Your task to perform on an android device: Turn on the flashlight Image 0: 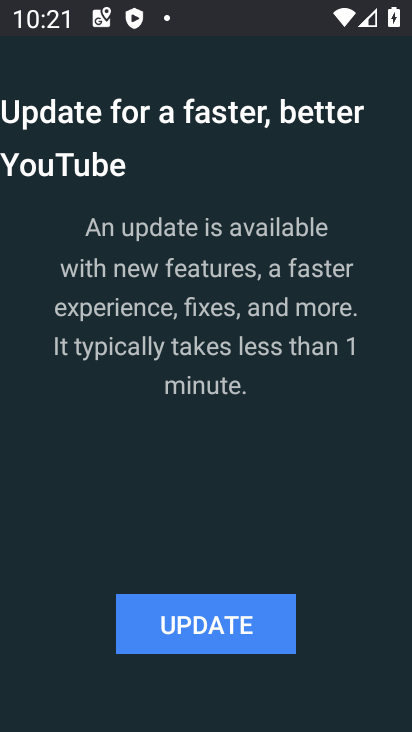
Step 0: press home button
Your task to perform on an android device: Turn on the flashlight Image 1: 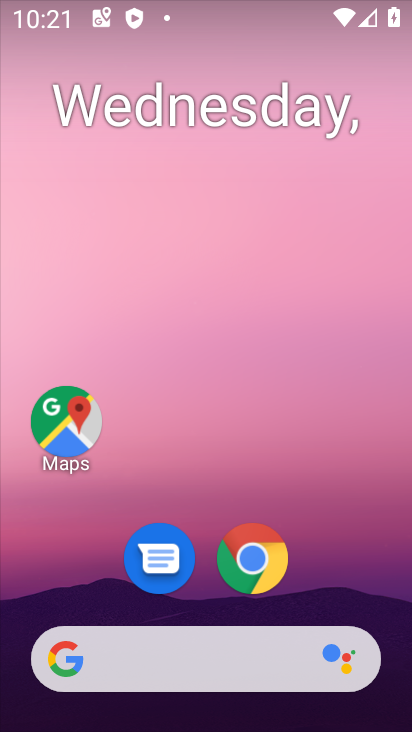
Step 1: drag from (50, 467) to (196, 168)
Your task to perform on an android device: Turn on the flashlight Image 2: 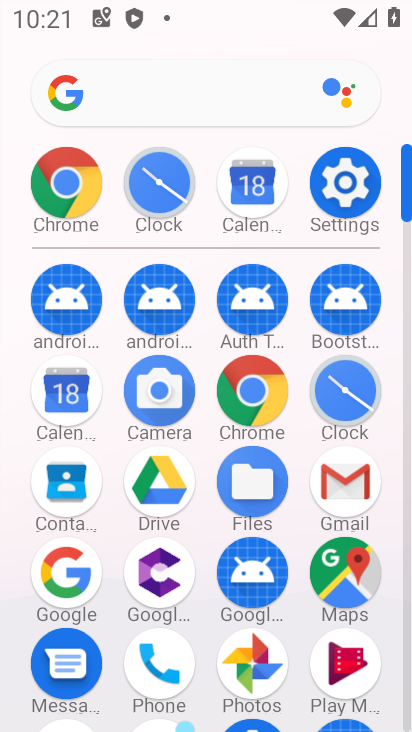
Step 2: click (337, 173)
Your task to perform on an android device: Turn on the flashlight Image 3: 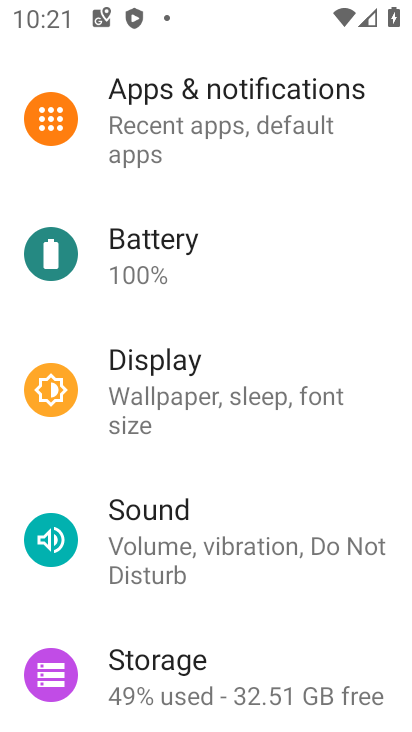
Step 3: task complete